Your task to perform on an android device: turn pop-ups off in chrome Image 0: 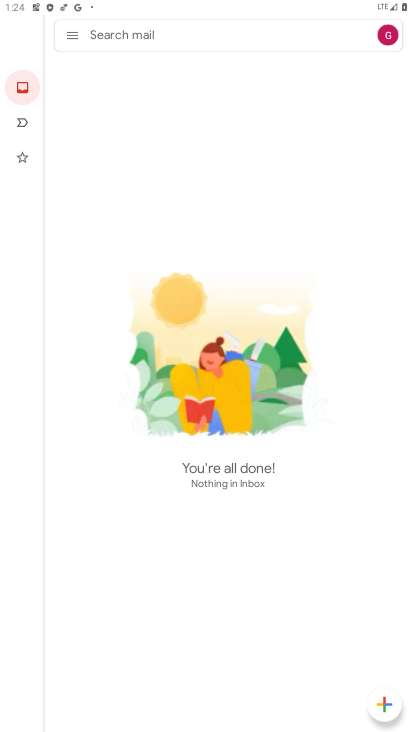
Step 0: press home button
Your task to perform on an android device: turn pop-ups off in chrome Image 1: 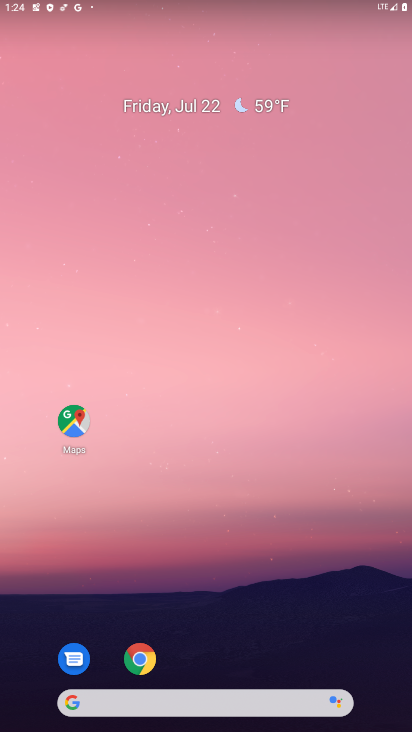
Step 1: drag from (124, 590) to (13, 43)
Your task to perform on an android device: turn pop-ups off in chrome Image 2: 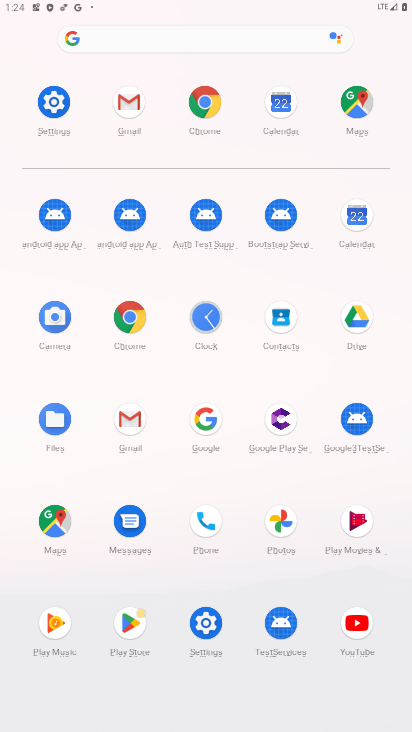
Step 2: click (197, 118)
Your task to perform on an android device: turn pop-ups off in chrome Image 3: 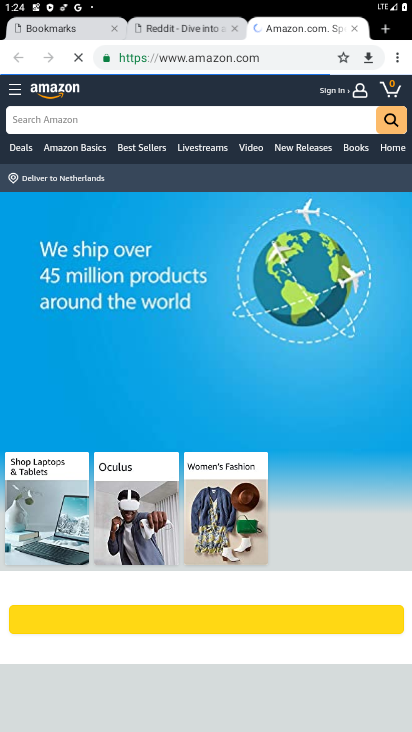
Step 3: drag from (394, 62) to (290, 349)
Your task to perform on an android device: turn pop-ups off in chrome Image 4: 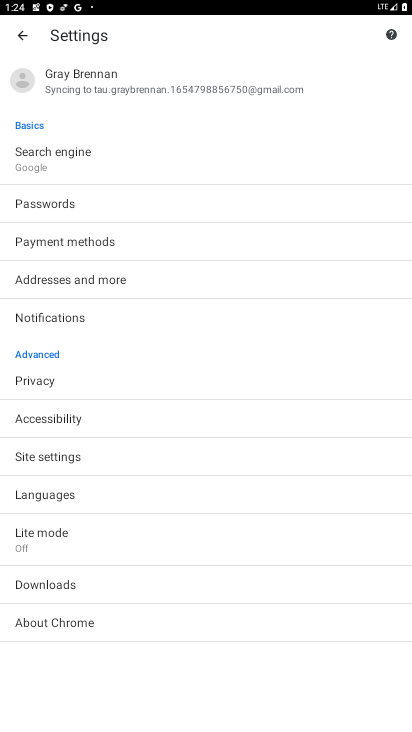
Step 4: click (52, 456)
Your task to perform on an android device: turn pop-ups off in chrome Image 5: 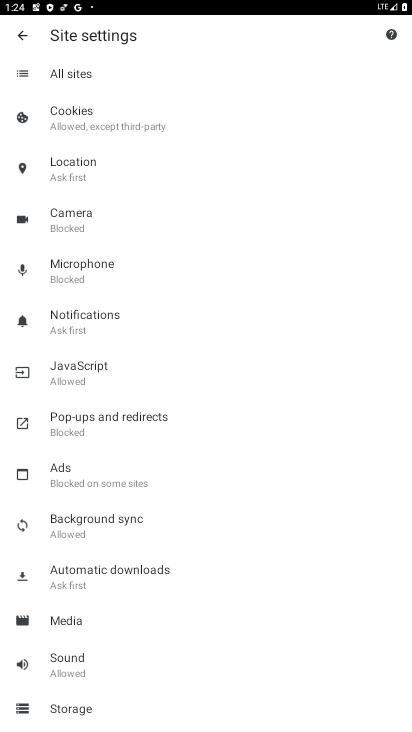
Step 5: click (79, 420)
Your task to perform on an android device: turn pop-ups off in chrome Image 6: 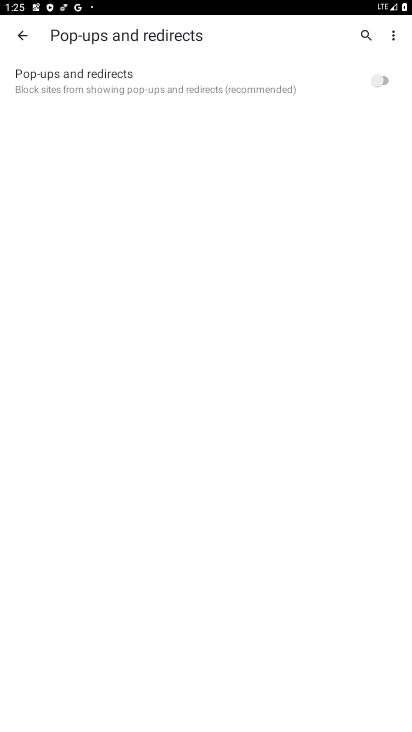
Step 6: task complete